Your task to perform on an android device: open chrome and create a bookmark for the current page Image 0: 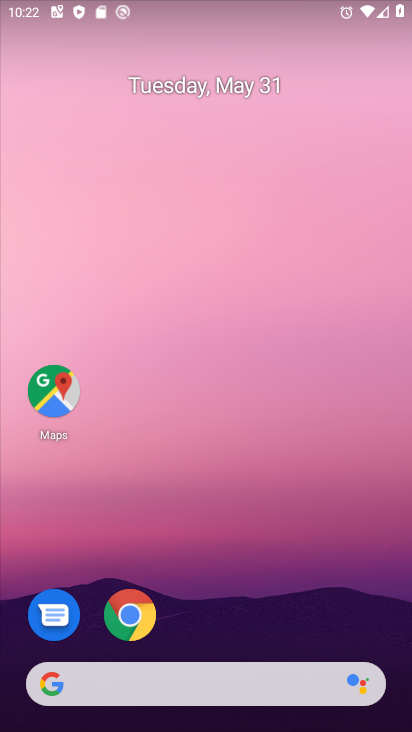
Step 0: drag from (352, 586) to (407, 450)
Your task to perform on an android device: open chrome and create a bookmark for the current page Image 1: 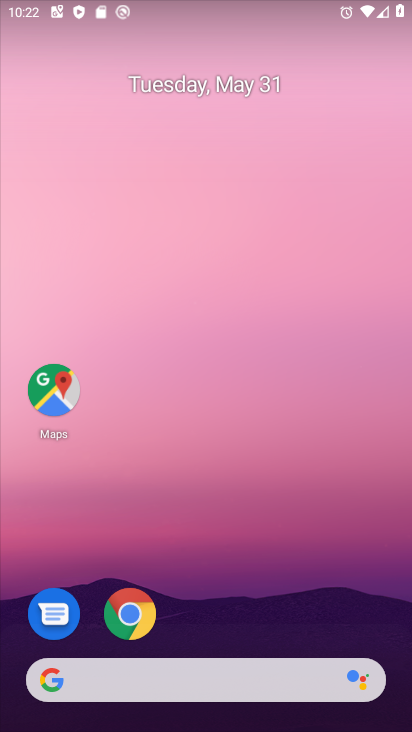
Step 1: click (362, 207)
Your task to perform on an android device: open chrome and create a bookmark for the current page Image 2: 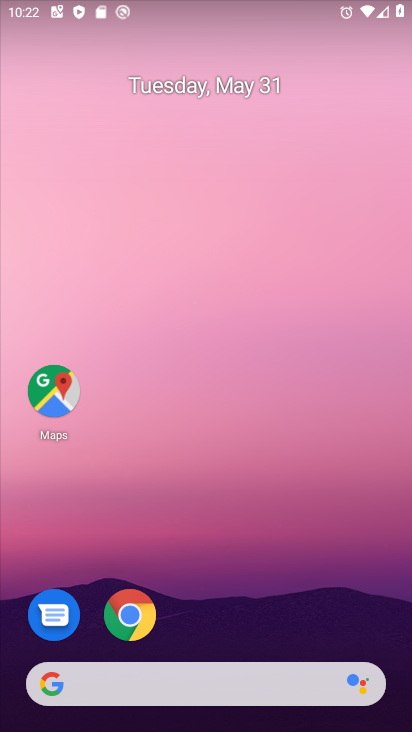
Step 2: drag from (339, 491) to (379, 0)
Your task to perform on an android device: open chrome and create a bookmark for the current page Image 3: 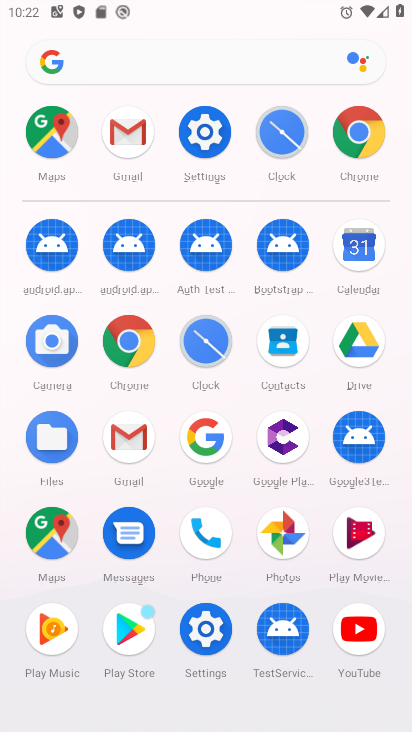
Step 3: click (364, 141)
Your task to perform on an android device: open chrome and create a bookmark for the current page Image 4: 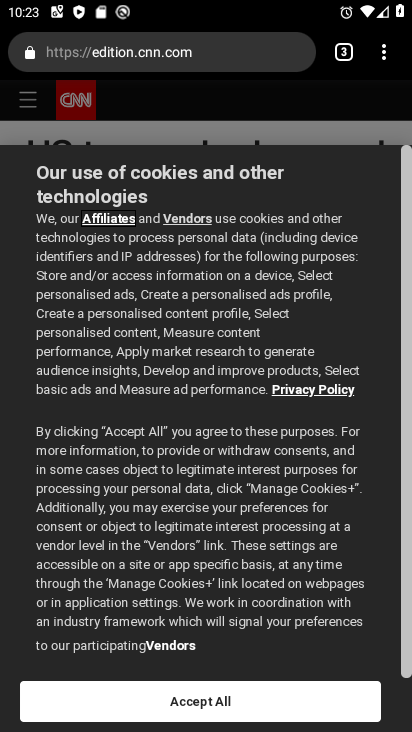
Step 4: task complete